Your task to perform on an android device: change notification settings in the gmail app Image 0: 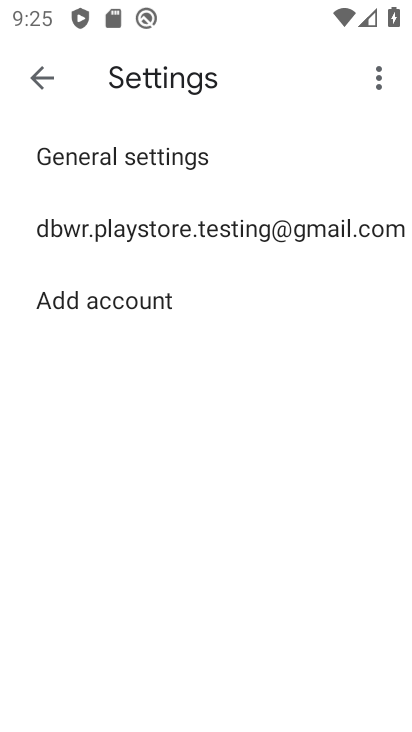
Step 0: press home button
Your task to perform on an android device: change notification settings in the gmail app Image 1: 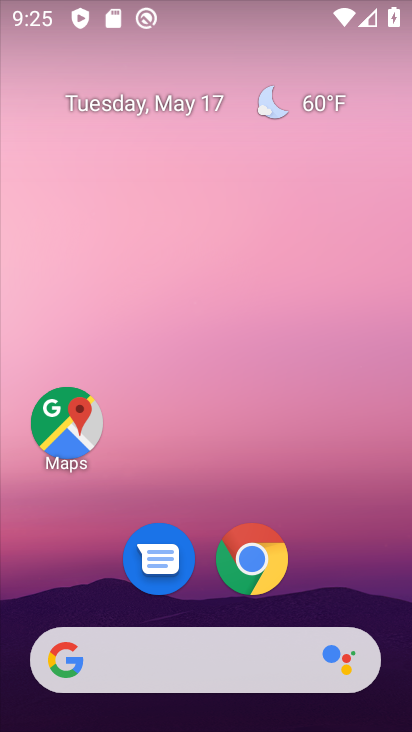
Step 1: drag from (352, 565) to (337, 139)
Your task to perform on an android device: change notification settings in the gmail app Image 2: 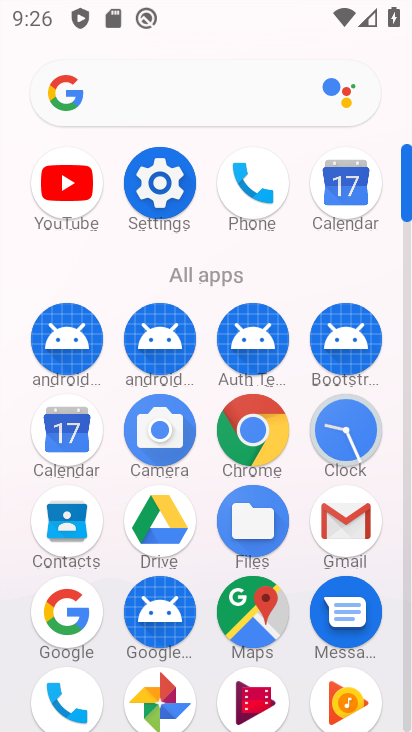
Step 2: click (355, 521)
Your task to perform on an android device: change notification settings in the gmail app Image 3: 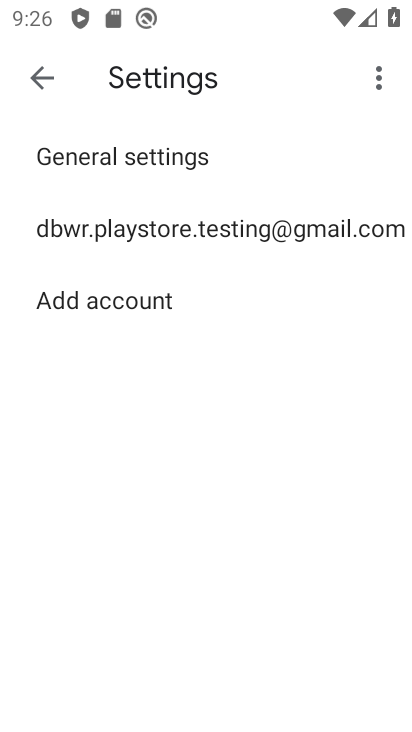
Step 3: click (154, 248)
Your task to perform on an android device: change notification settings in the gmail app Image 4: 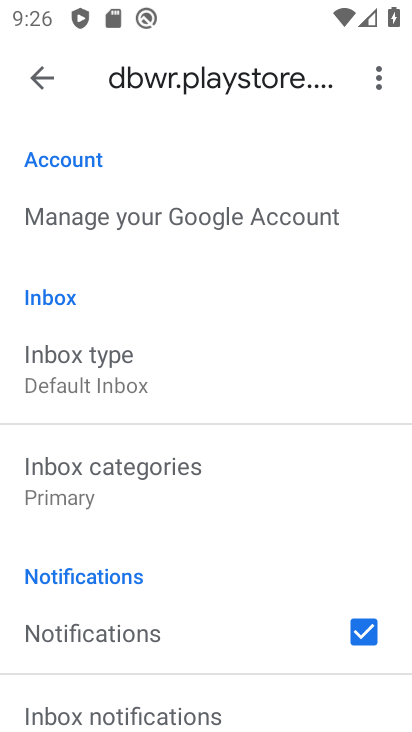
Step 4: drag from (128, 587) to (223, 228)
Your task to perform on an android device: change notification settings in the gmail app Image 5: 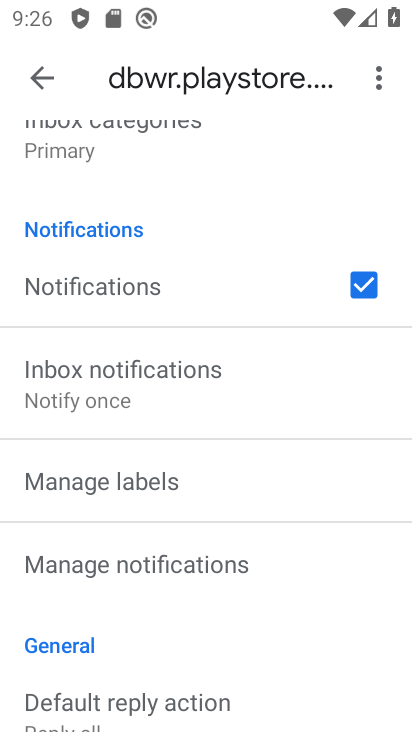
Step 5: click (134, 567)
Your task to perform on an android device: change notification settings in the gmail app Image 6: 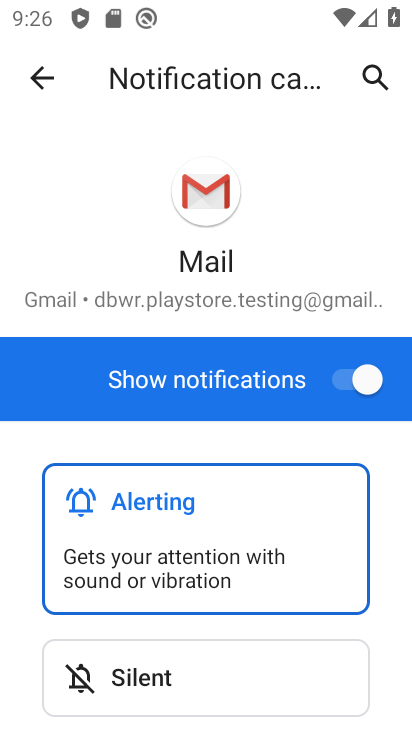
Step 6: click (366, 378)
Your task to perform on an android device: change notification settings in the gmail app Image 7: 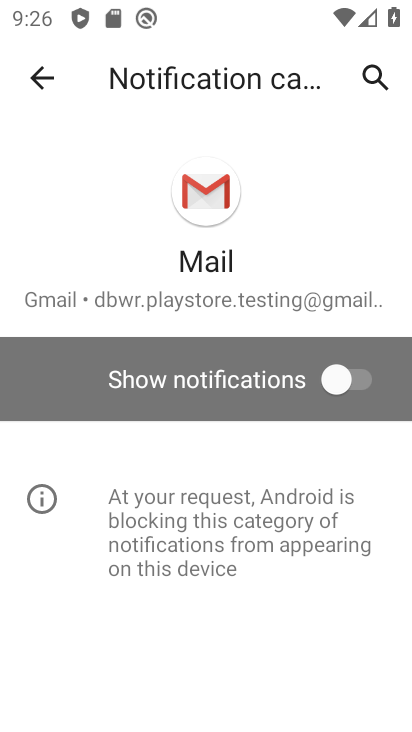
Step 7: task complete